Your task to perform on an android device: What's on my calendar today? Image 0: 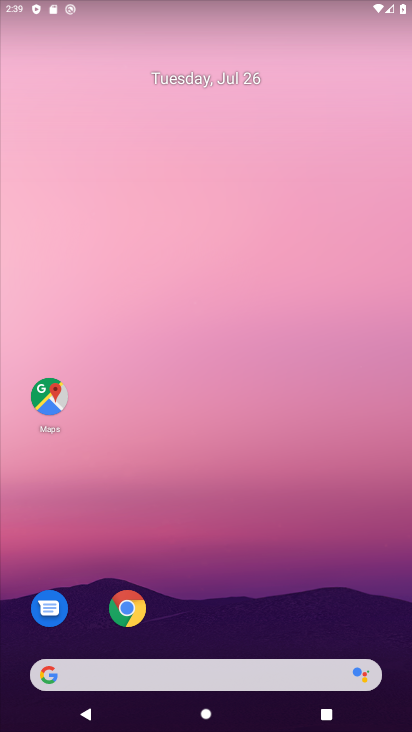
Step 0: drag from (193, 609) to (111, 5)
Your task to perform on an android device: What's on my calendar today? Image 1: 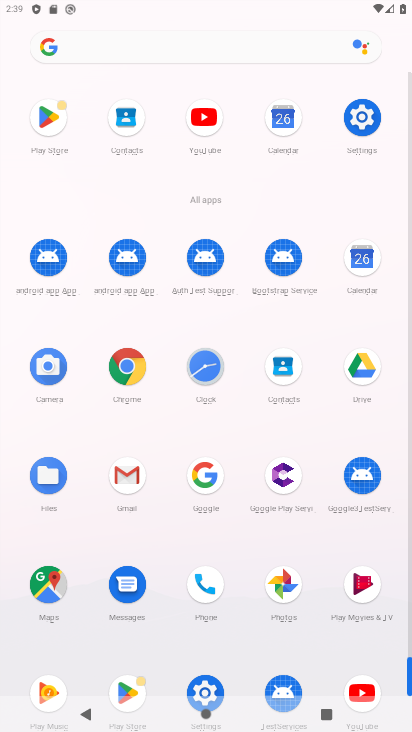
Step 1: click (365, 267)
Your task to perform on an android device: What's on my calendar today? Image 2: 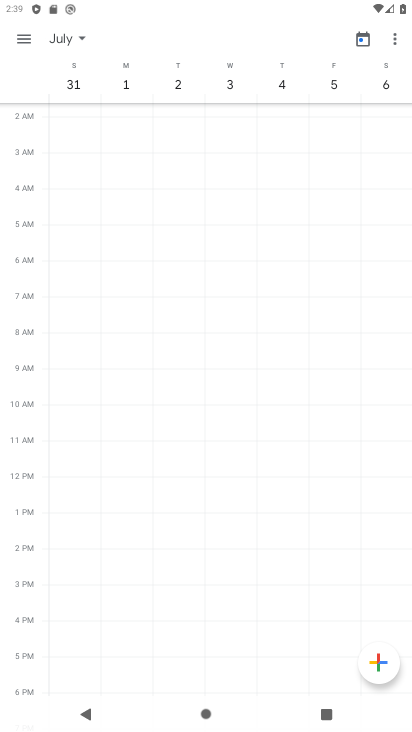
Step 2: drag from (74, 79) to (380, 121)
Your task to perform on an android device: What's on my calendar today? Image 3: 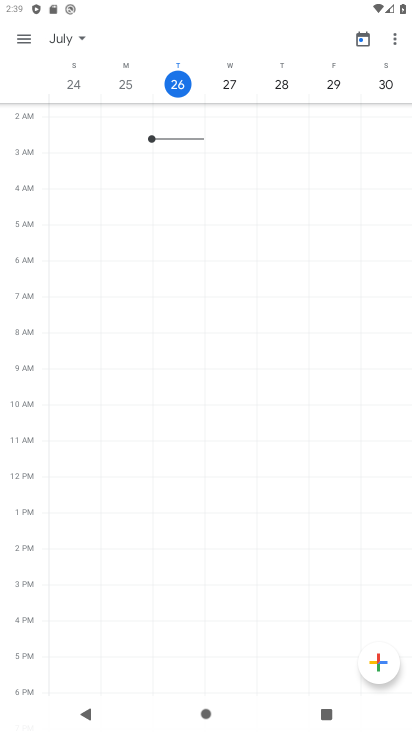
Step 3: click (21, 35)
Your task to perform on an android device: What's on my calendar today? Image 4: 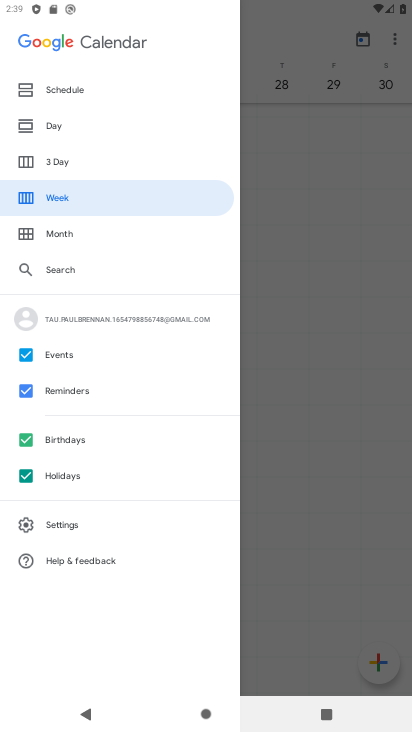
Step 4: click (67, 124)
Your task to perform on an android device: What's on my calendar today? Image 5: 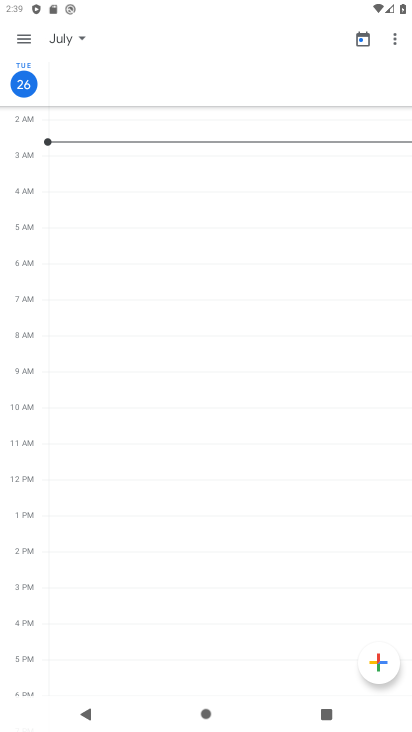
Step 5: task complete